Your task to perform on an android device: Search for seafood restaurants on Google Maps Image 0: 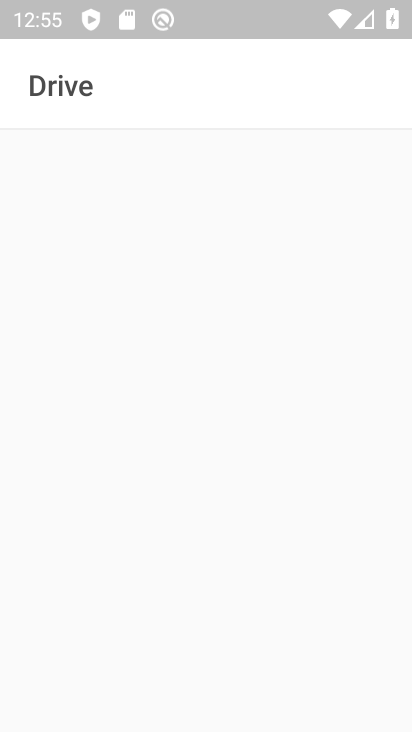
Step 0: drag from (378, 508) to (353, 117)
Your task to perform on an android device: Search for seafood restaurants on Google Maps Image 1: 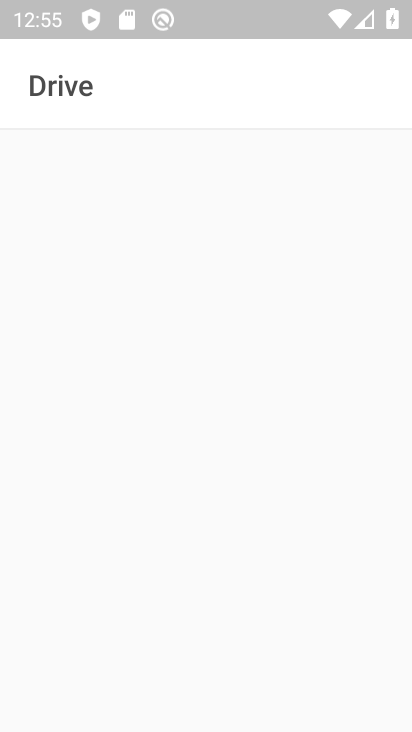
Step 1: press home button
Your task to perform on an android device: Search for seafood restaurants on Google Maps Image 2: 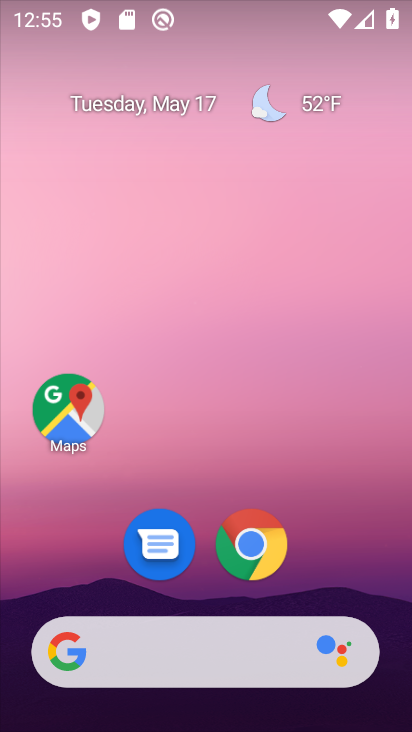
Step 2: drag from (365, 568) to (379, 61)
Your task to perform on an android device: Search for seafood restaurants on Google Maps Image 3: 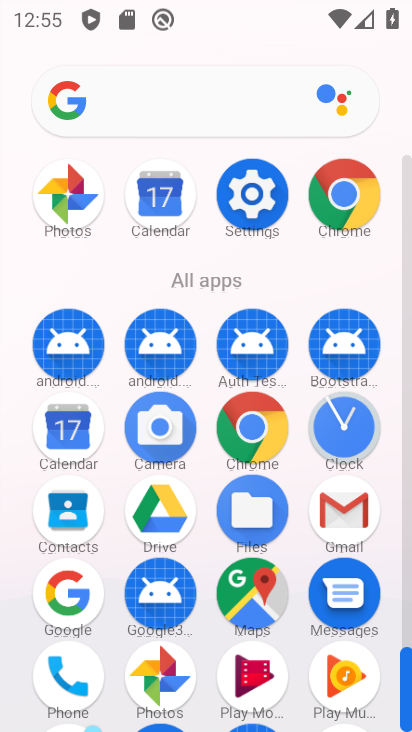
Step 3: click (253, 603)
Your task to perform on an android device: Search for seafood restaurants on Google Maps Image 4: 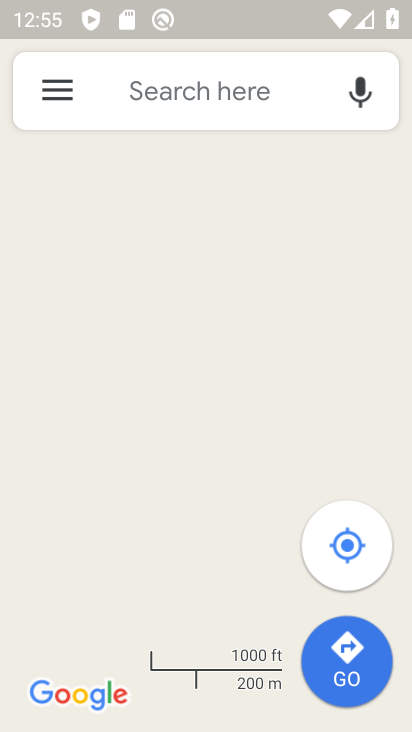
Step 4: click (239, 96)
Your task to perform on an android device: Search for seafood restaurants on Google Maps Image 5: 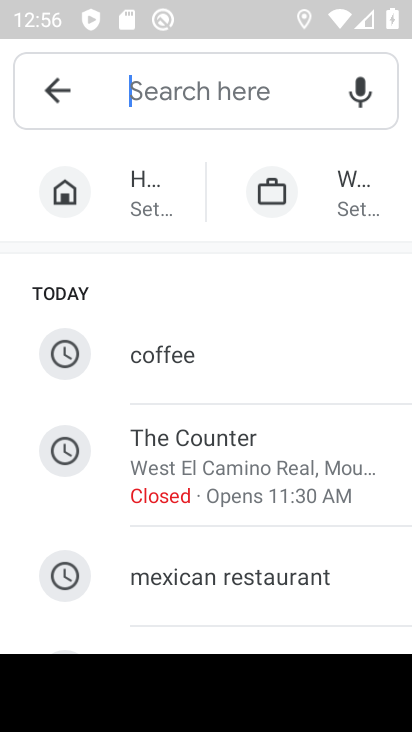
Step 5: type "seafood restaurants"
Your task to perform on an android device: Search for seafood restaurants on Google Maps Image 6: 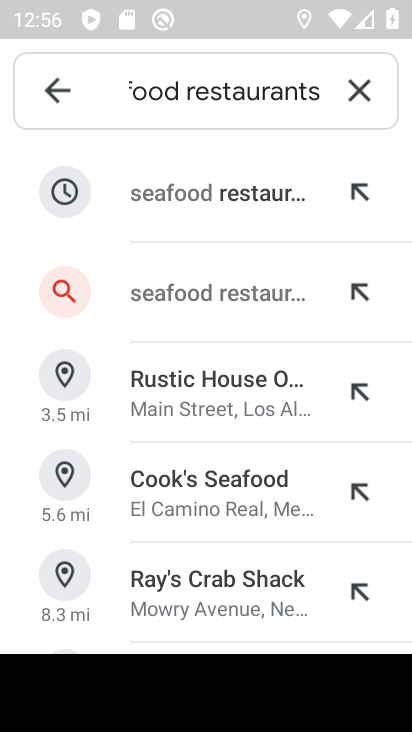
Step 6: click (173, 208)
Your task to perform on an android device: Search for seafood restaurants on Google Maps Image 7: 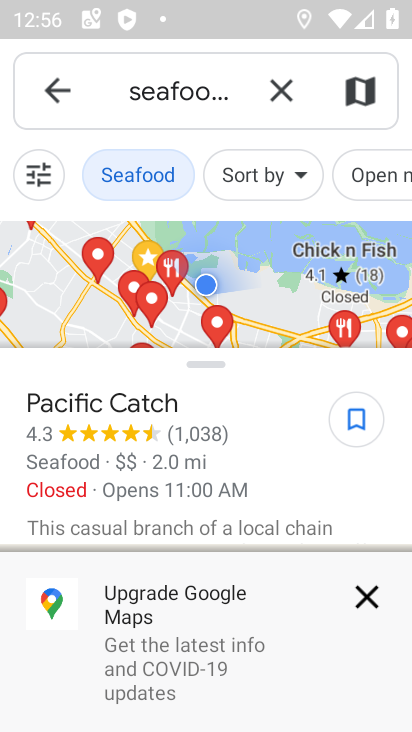
Step 7: task complete